Your task to perform on an android device: Open Yahoo.com Image 0: 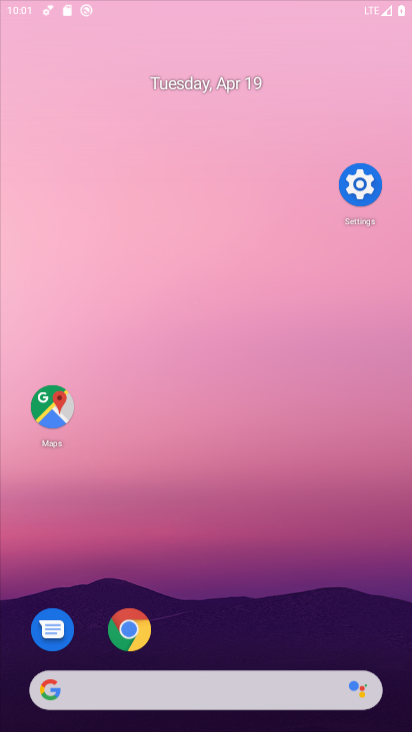
Step 0: click (258, 66)
Your task to perform on an android device: Open Yahoo.com Image 1: 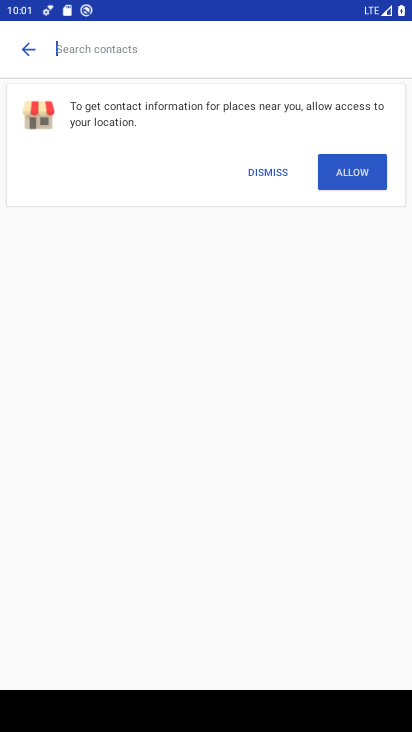
Step 1: press home button
Your task to perform on an android device: Open Yahoo.com Image 2: 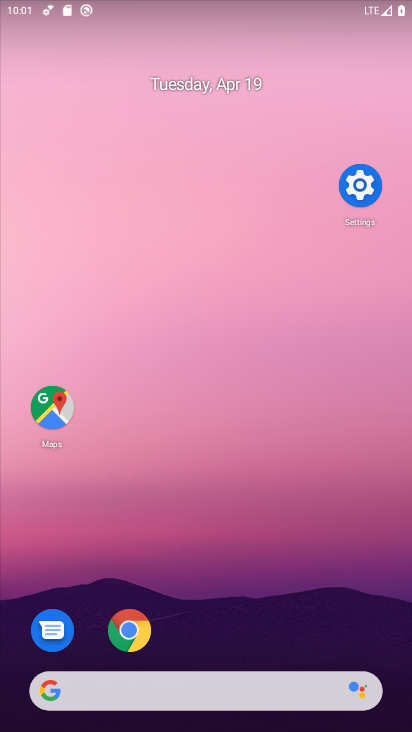
Step 2: drag from (215, 668) to (286, 148)
Your task to perform on an android device: Open Yahoo.com Image 3: 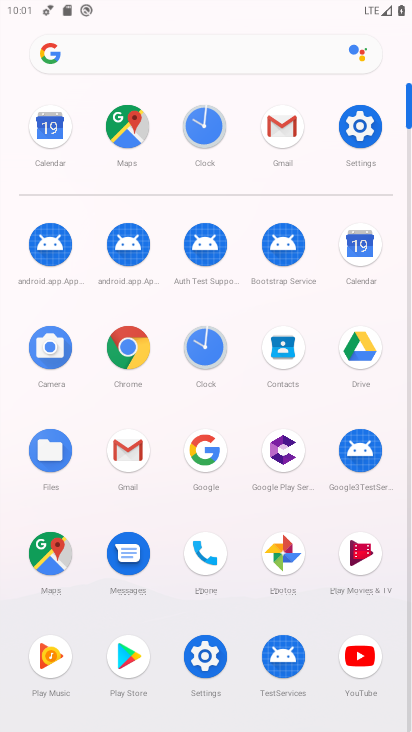
Step 3: click (133, 366)
Your task to perform on an android device: Open Yahoo.com Image 4: 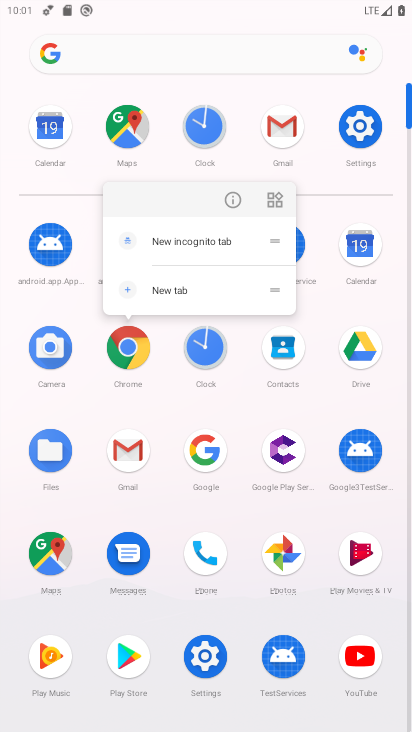
Step 4: click (132, 375)
Your task to perform on an android device: Open Yahoo.com Image 5: 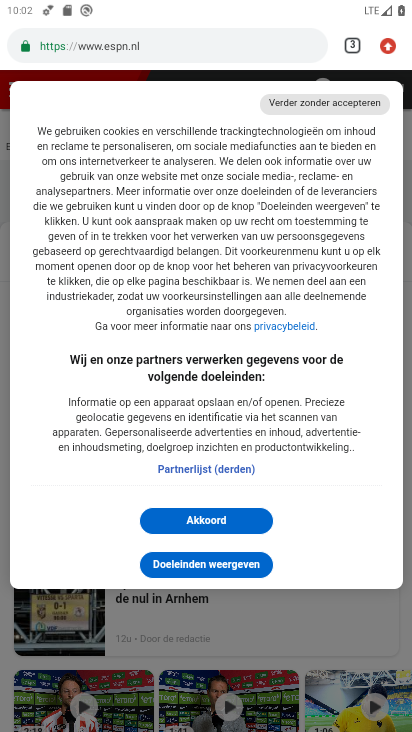
Step 5: drag from (272, 36) to (264, 201)
Your task to perform on an android device: Open Yahoo.com Image 6: 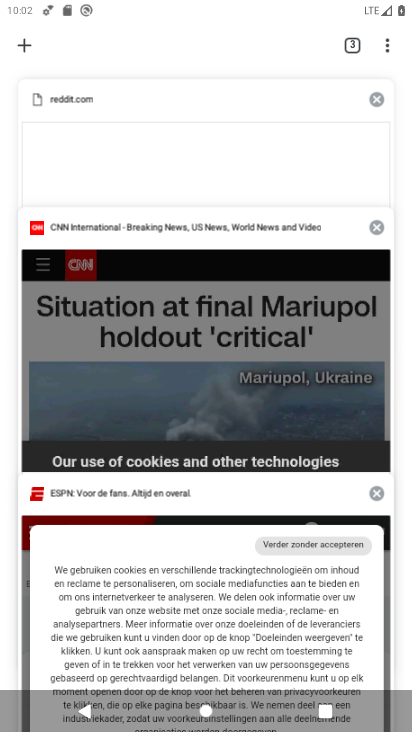
Step 6: click (26, 47)
Your task to perform on an android device: Open Yahoo.com Image 7: 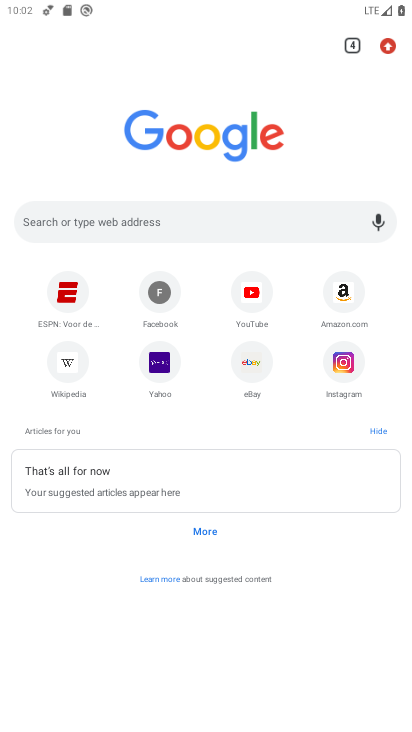
Step 7: click (158, 358)
Your task to perform on an android device: Open Yahoo.com Image 8: 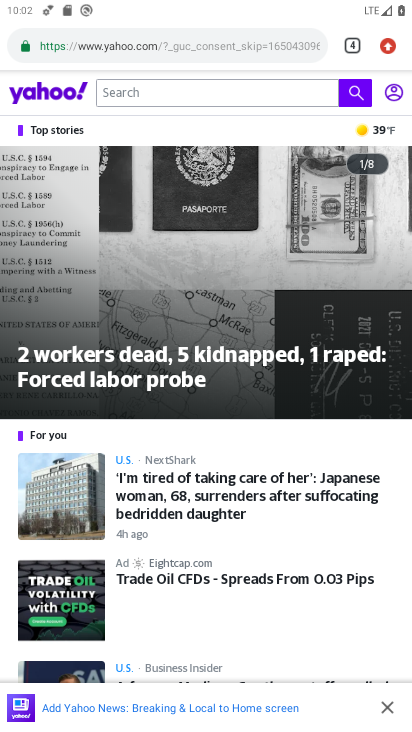
Step 8: task complete